Your task to perform on an android device: Search for hotels in Tokyo Image 0: 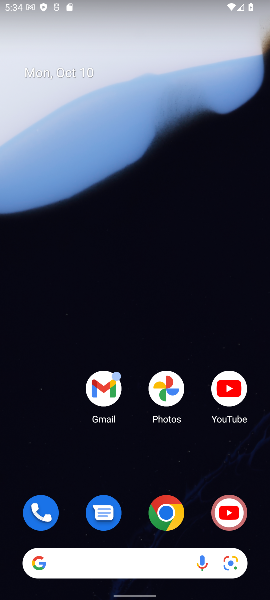
Step 0: click (137, 551)
Your task to perform on an android device: Search for hotels in Tokyo Image 1: 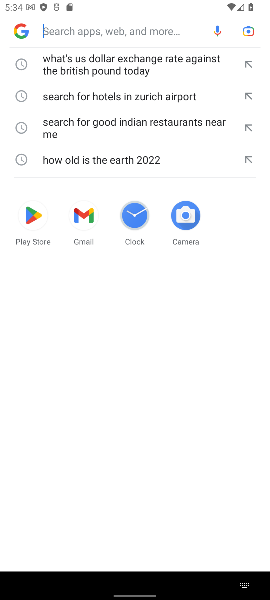
Step 1: type "hotels in Tokyo"
Your task to perform on an android device: Search for hotels in Tokyo Image 2: 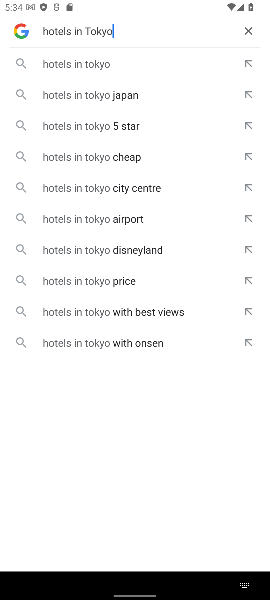
Step 2: click (42, 70)
Your task to perform on an android device: Search for hotels in Tokyo Image 3: 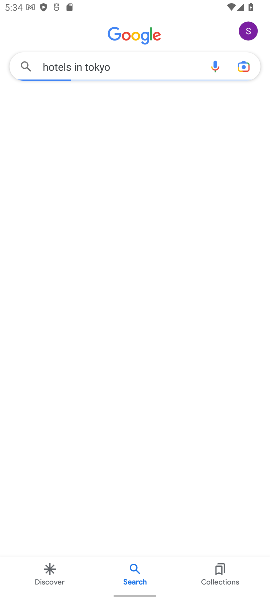
Step 3: task complete